Your task to perform on an android device: Open the Play Movies app and select the watchlist tab. Image 0: 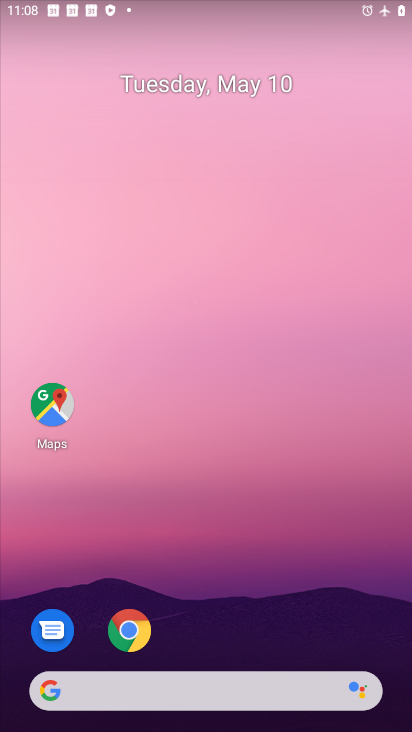
Step 0: drag from (231, 717) to (316, 185)
Your task to perform on an android device: Open the Play Movies app and select the watchlist tab. Image 1: 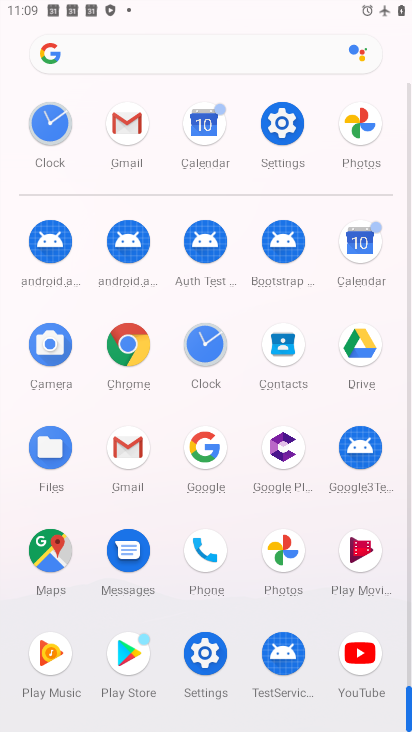
Step 1: click (362, 563)
Your task to perform on an android device: Open the Play Movies app and select the watchlist tab. Image 2: 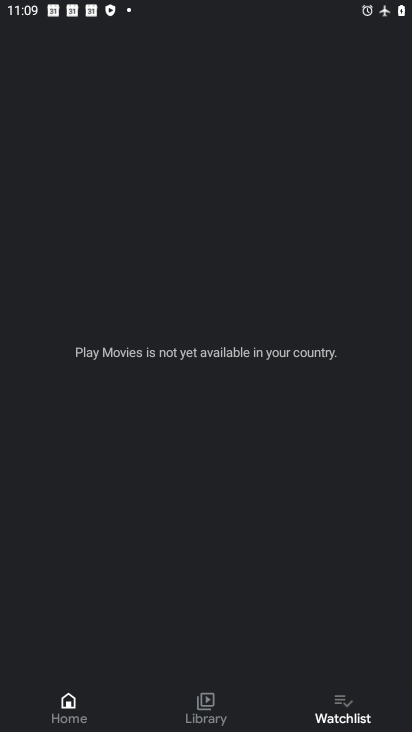
Step 2: click (363, 700)
Your task to perform on an android device: Open the Play Movies app and select the watchlist tab. Image 3: 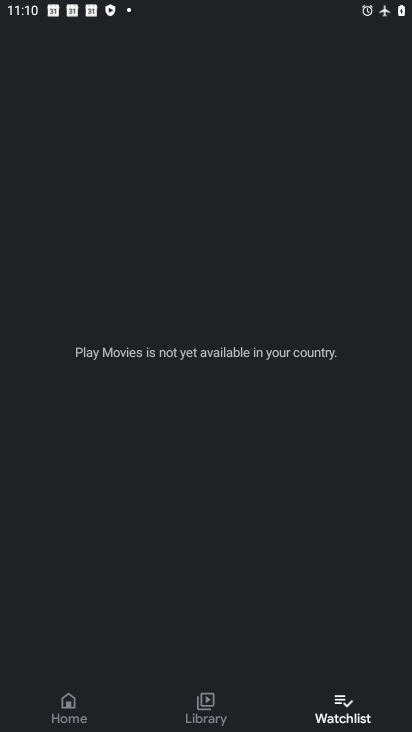
Step 3: task complete